Your task to perform on an android device: Open Wikipedia Image 0: 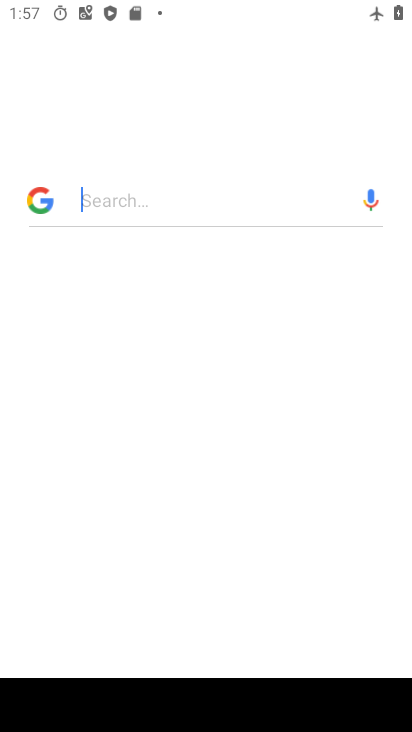
Step 0: press home button
Your task to perform on an android device: Open Wikipedia Image 1: 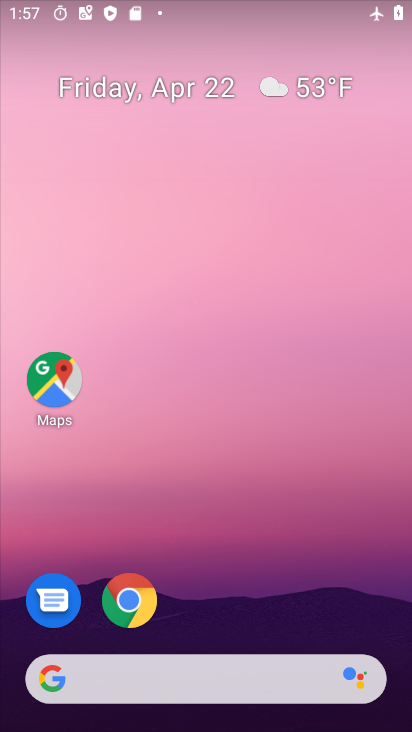
Step 1: click (131, 606)
Your task to perform on an android device: Open Wikipedia Image 2: 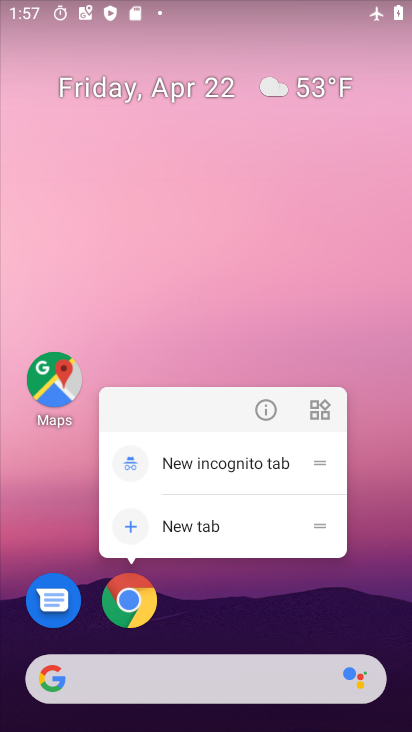
Step 2: click (132, 605)
Your task to perform on an android device: Open Wikipedia Image 3: 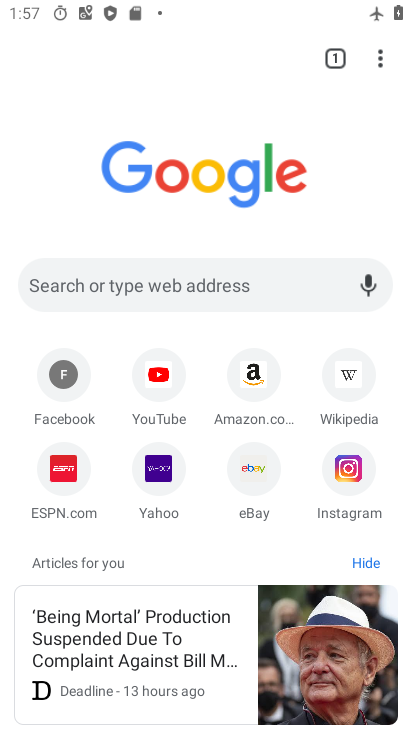
Step 3: click (345, 373)
Your task to perform on an android device: Open Wikipedia Image 4: 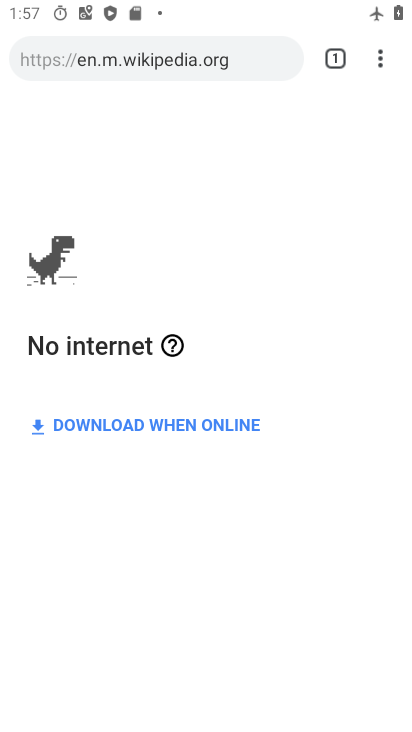
Step 4: task complete